Your task to perform on an android device: turn pop-ups on in chrome Image 0: 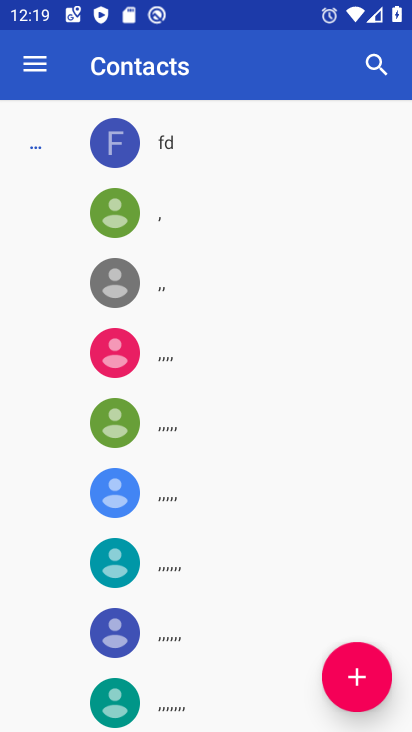
Step 0: press home button
Your task to perform on an android device: turn pop-ups on in chrome Image 1: 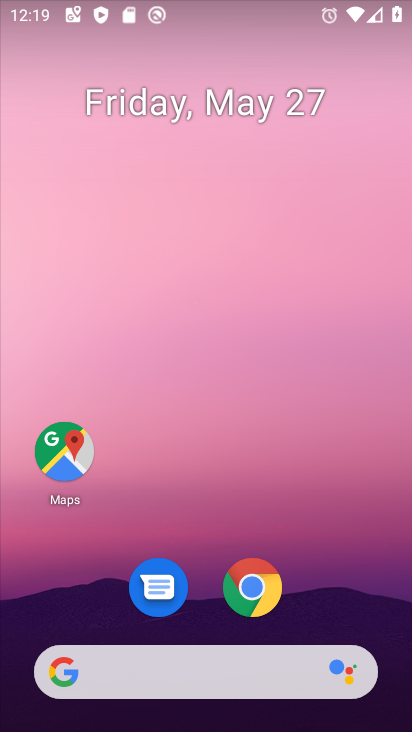
Step 1: drag from (221, 681) to (253, 156)
Your task to perform on an android device: turn pop-ups on in chrome Image 2: 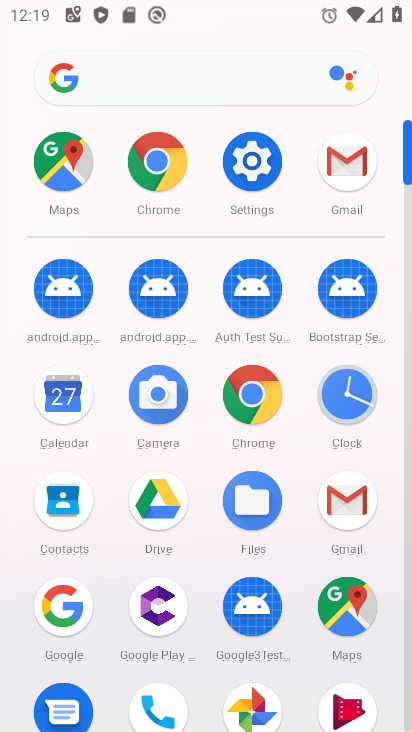
Step 2: click (169, 163)
Your task to perform on an android device: turn pop-ups on in chrome Image 3: 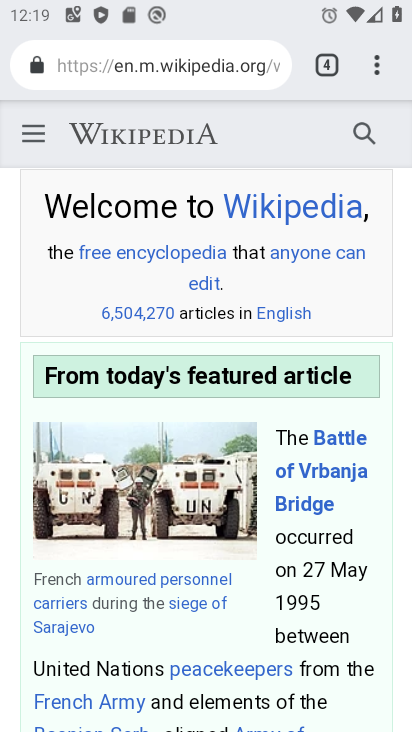
Step 3: click (375, 71)
Your task to perform on an android device: turn pop-ups on in chrome Image 4: 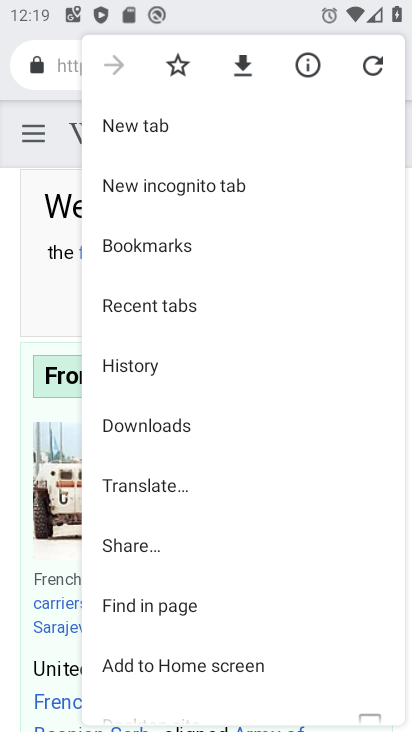
Step 4: drag from (152, 595) to (210, 338)
Your task to perform on an android device: turn pop-ups on in chrome Image 5: 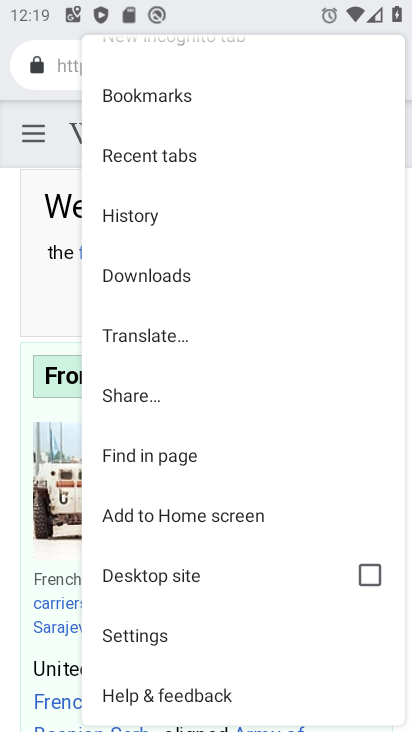
Step 5: click (135, 632)
Your task to perform on an android device: turn pop-ups on in chrome Image 6: 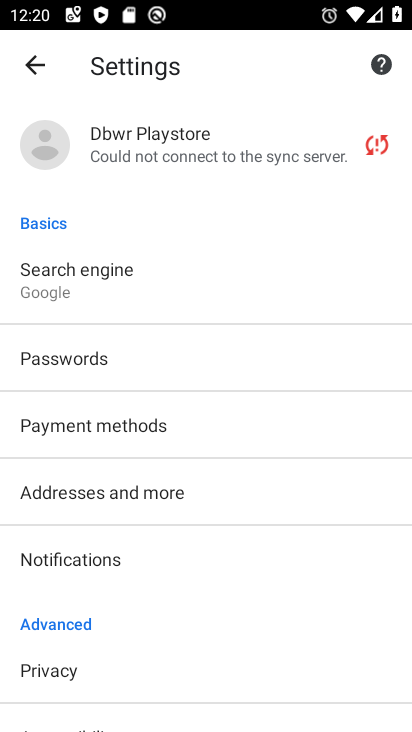
Step 6: drag from (78, 609) to (173, 245)
Your task to perform on an android device: turn pop-ups on in chrome Image 7: 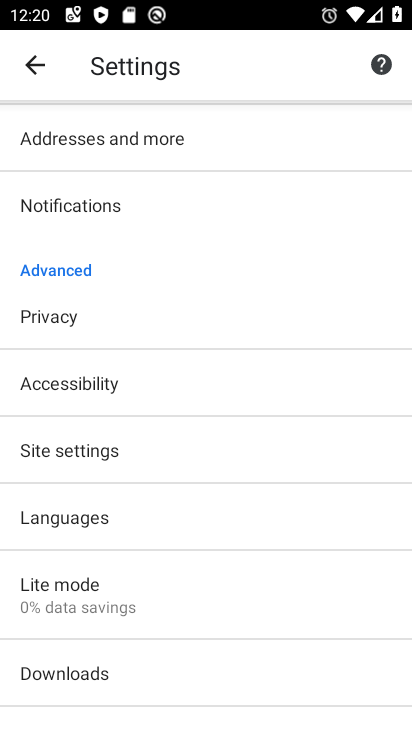
Step 7: click (67, 450)
Your task to perform on an android device: turn pop-ups on in chrome Image 8: 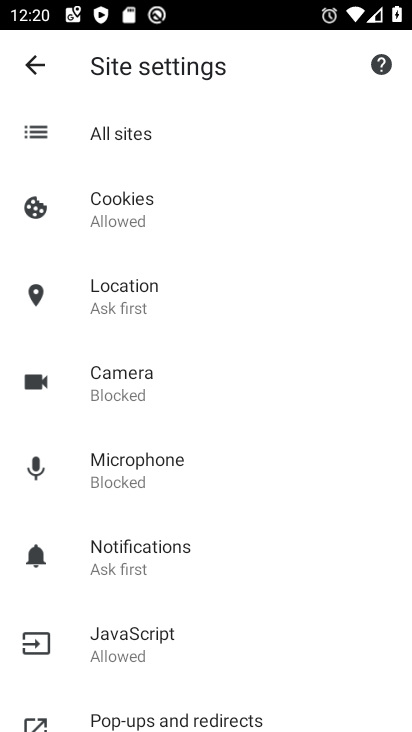
Step 8: click (165, 711)
Your task to perform on an android device: turn pop-ups on in chrome Image 9: 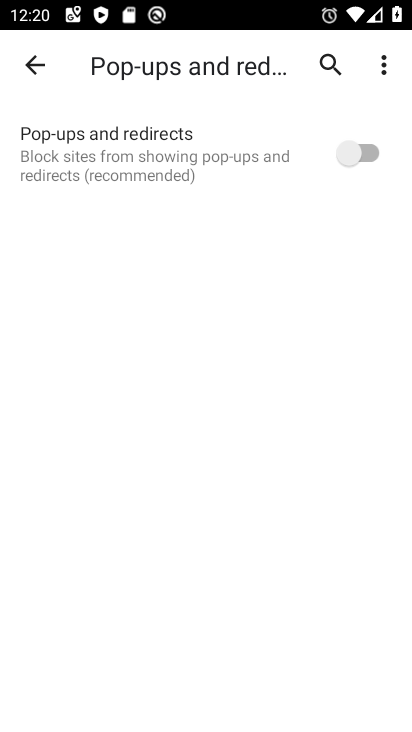
Step 9: task complete